Your task to perform on an android device: Check the weather Image 0: 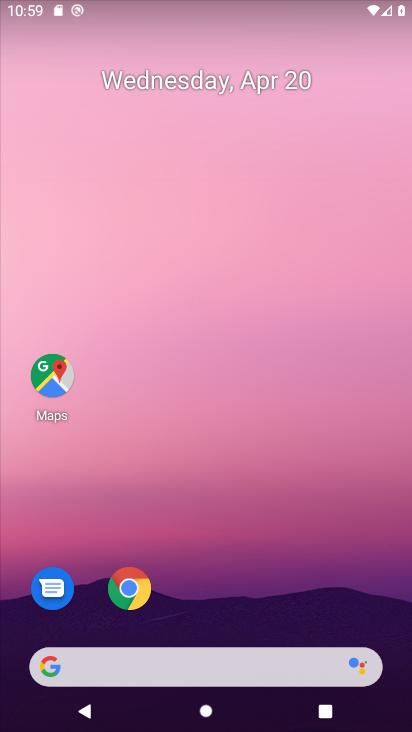
Step 0: drag from (1, 202) to (402, 266)
Your task to perform on an android device: Check the weather Image 1: 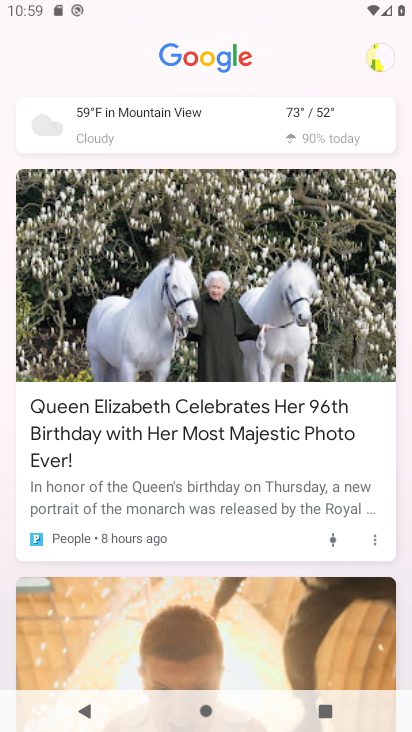
Step 1: click (299, 112)
Your task to perform on an android device: Check the weather Image 2: 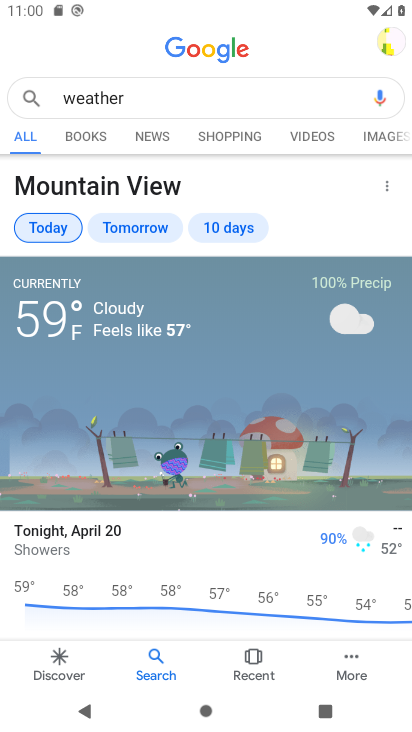
Step 2: task complete